Your task to perform on an android device: Open eBay Image 0: 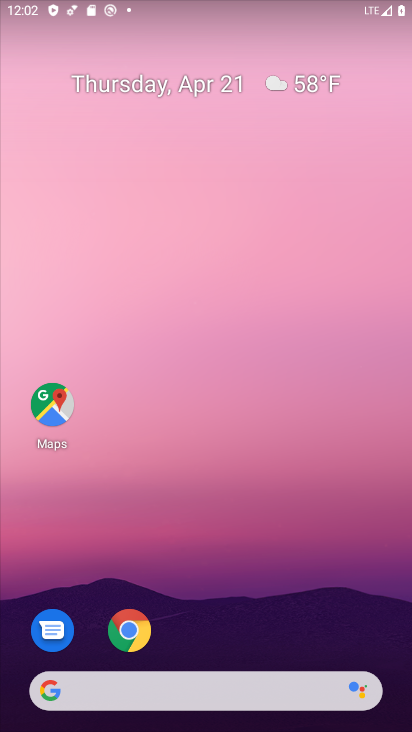
Step 0: drag from (133, 697) to (295, 76)
Your task to perform on an android device: Open eBay Image 1: 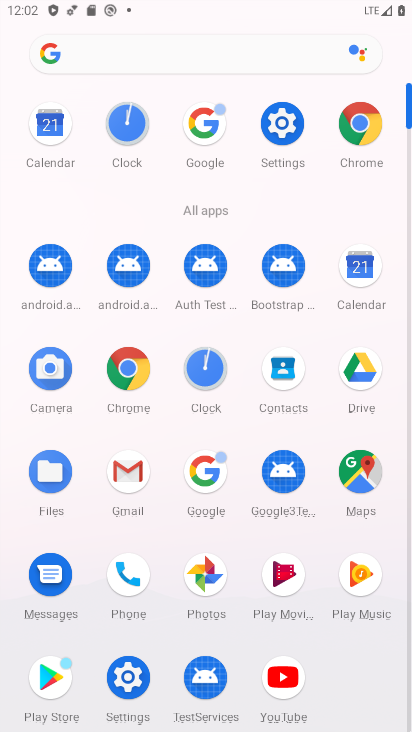
Step 1: click (363, 133)
Your task to perform on an android device: Open eBay Image 2: 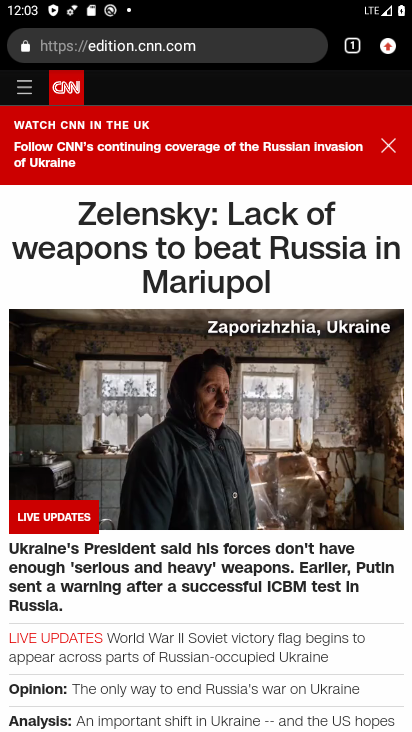
Step 2: click (383, 61)
Your task to perform on an android device: Open eBay Image 3: 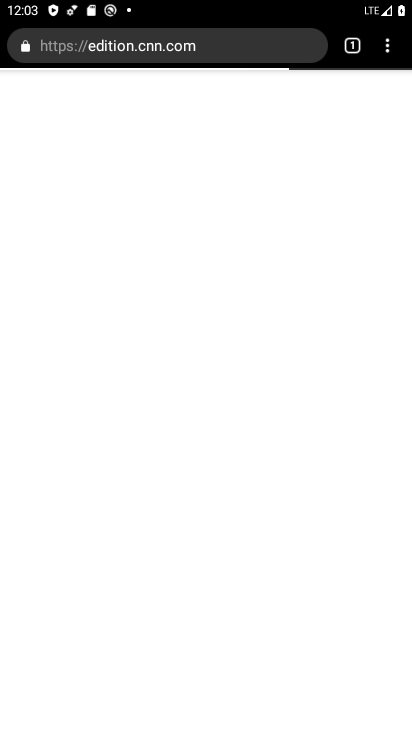
Step 3: click (383, 57)
Your task to perform on an android device: Open eBay Image 4: 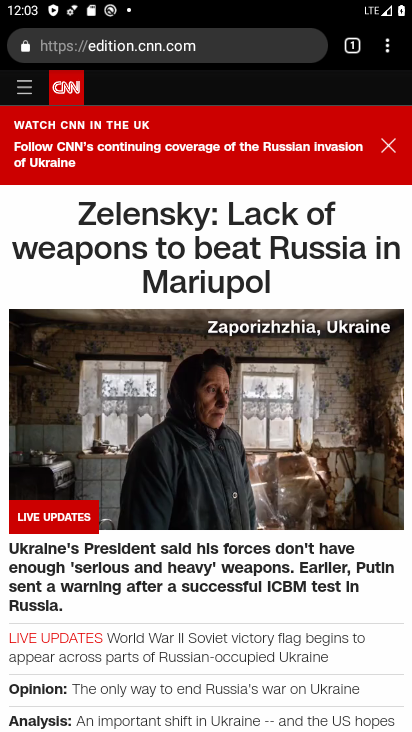
Step 4: click (382, 56)
Your task to perform on an android device: Open eBay Image 5: 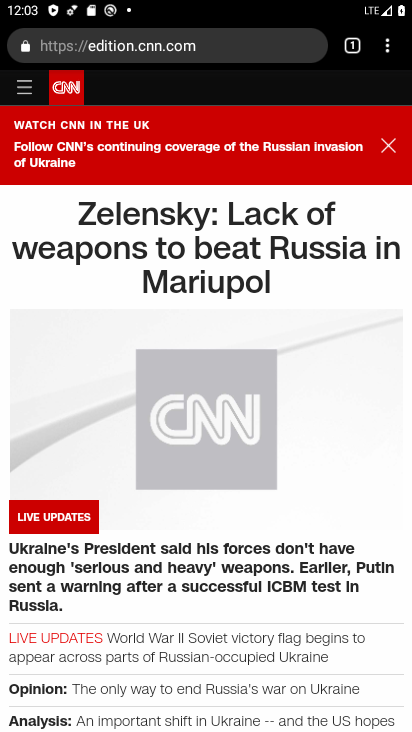
Step 5: click (381, 54)
Your task to perform on an android device: Open eBay Image 6: 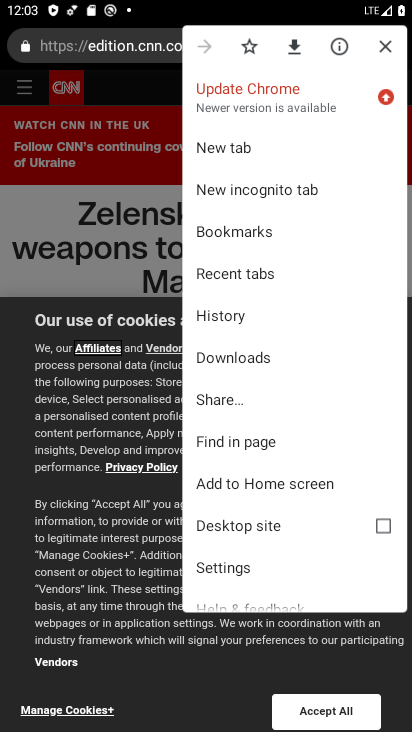
Step 6: click (230, 144)
Your task to perform on an android device: Open eBay Image 7: 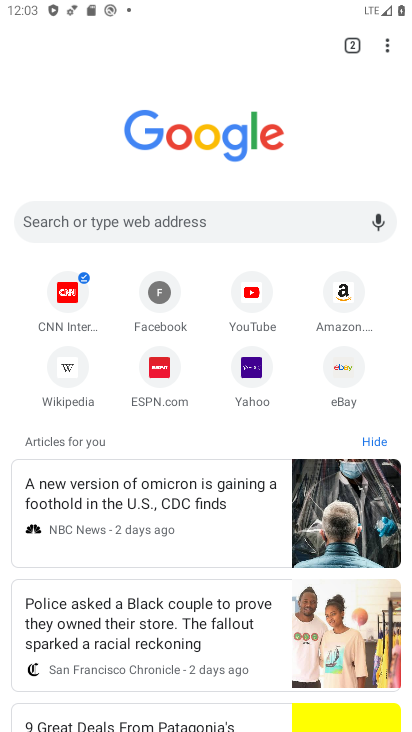
Step 7: click (100, 222)
Your task to perform on an android device: Open eBay Image 8: 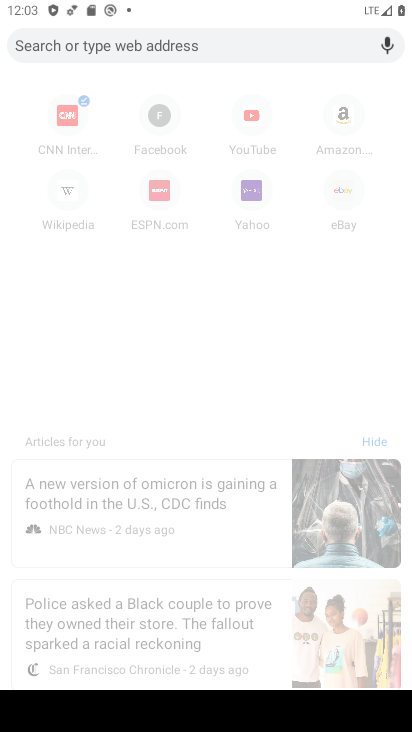
Step 8: type "ebay"
Your task to perform on an android device: Open eBay Image 9: 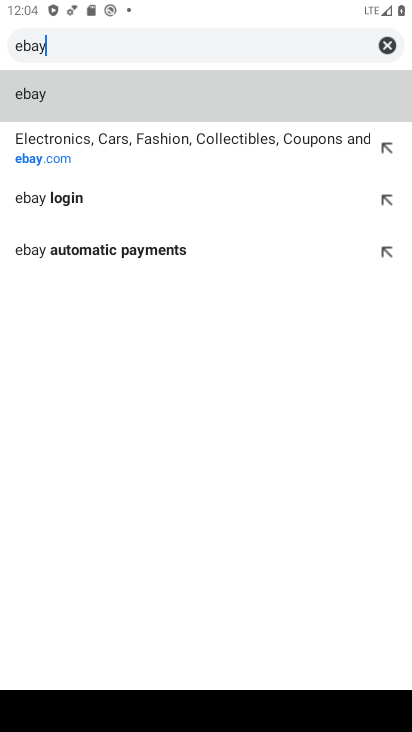
Step 9: click (72, 94)
Your task to perform on an android device: Open eBay Image 10: 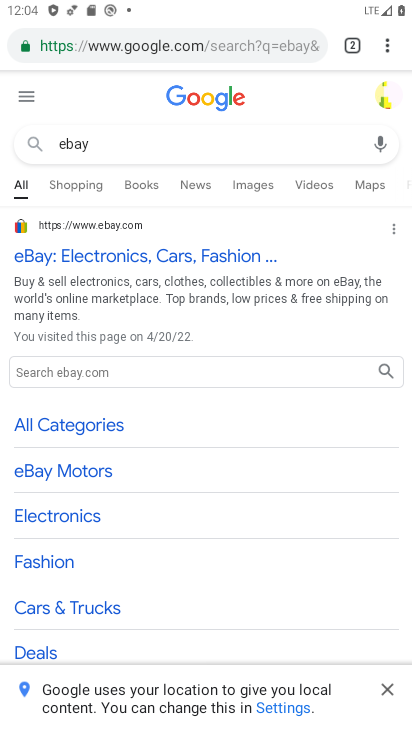
Step 10: click (210, 254)
Your task to perform on an android device: Open eBay Image 11: 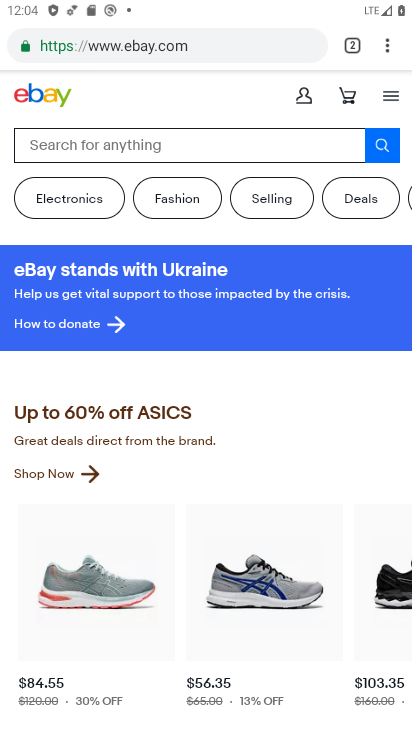
Step 11: task complete